Your task to perform on an android device: Open location settings Image 0: 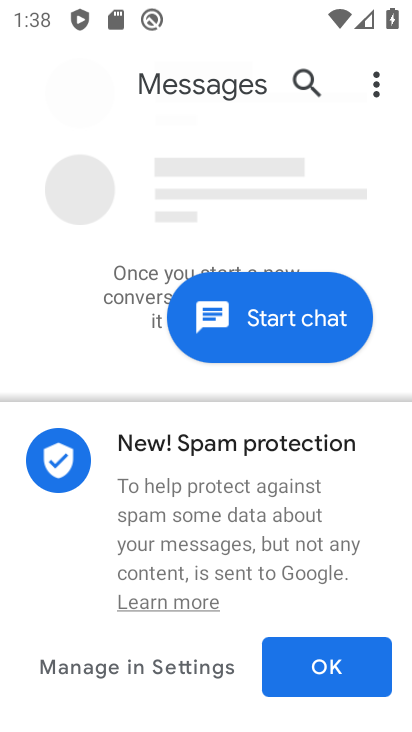
Step 0: press home button
Your task to perform on an android device: Open location settings Image 1: 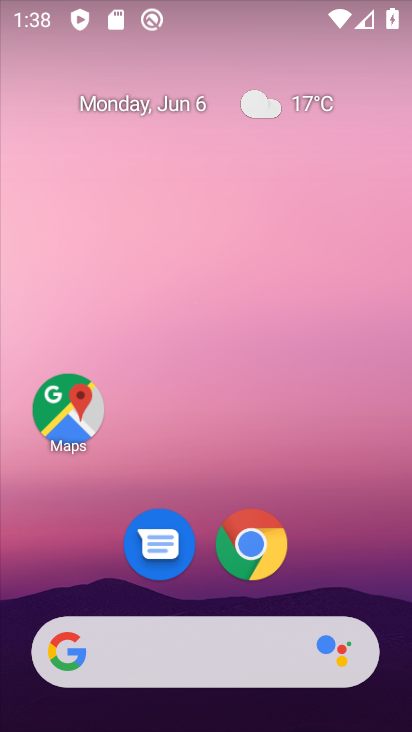
Step 1: drag from (349, 566) to (288, 244)
Your task to perform on an android device: Open location settings Image 2: 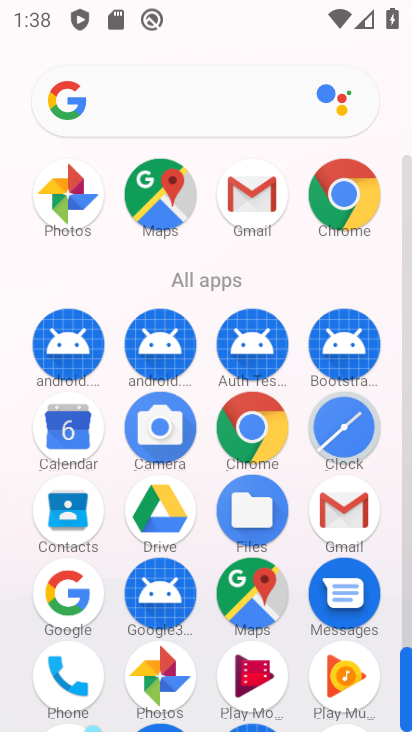
Step 2: drag from (284, 646) to (247, 332)
Your task to perform on an android device: Open location settings Image 3: 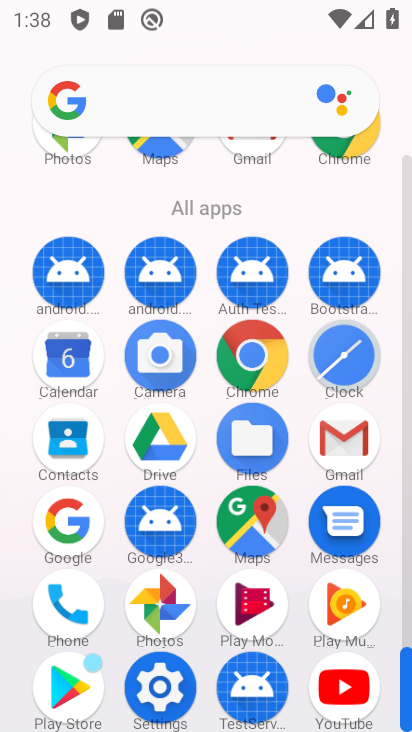
Step 3: click (169, 679)
Your task to perform on an android device: Open location settings Image 4: 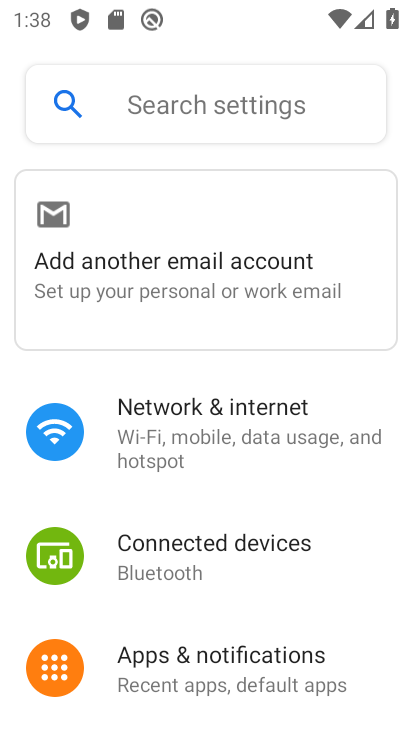
Step 4: drag from (320, 639) to (299, 349)
Your task to perform on an android device: Open location settings Image 5: 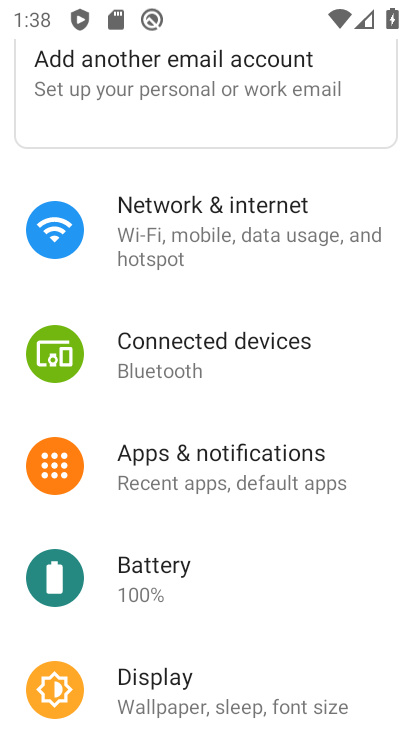
Step 5: drag from (321, 620) to (315, 248)
Your task to perform on an android device: Open location settings Image 6: 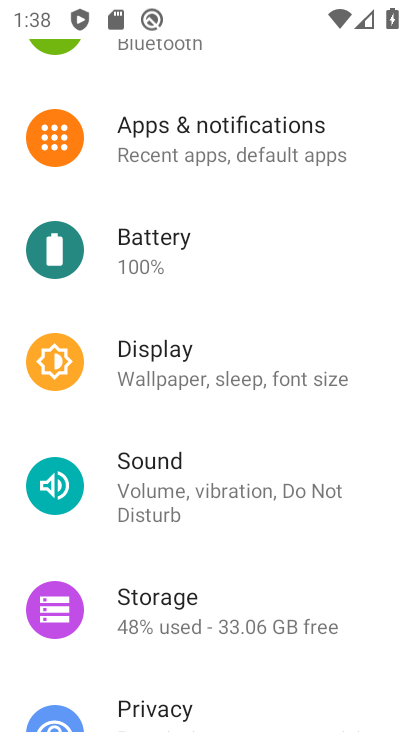
Step 6: drag from (284, 700) to (294, 285)
Your task to perform on an android device: Open location settings Image 7: 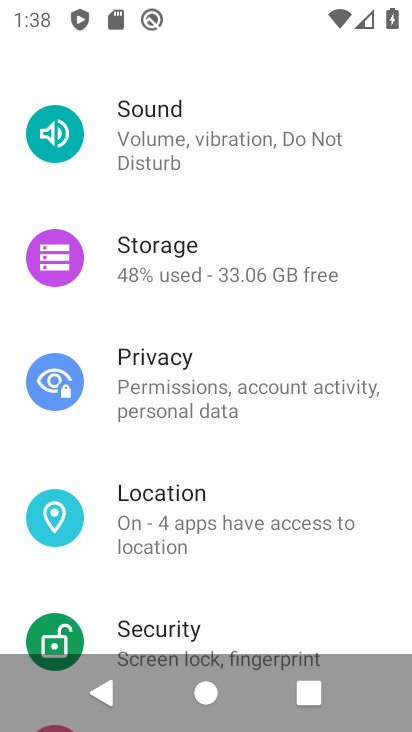
Step 7: click (231, 530)
Your task to perform on an android device: Open location settings Image 8: 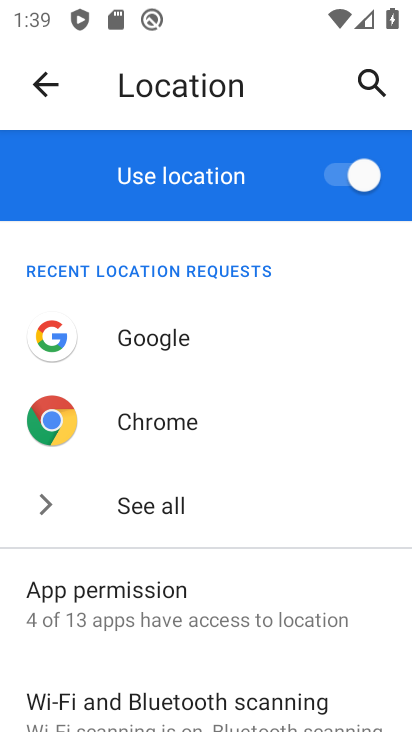
Step 8: drag from (270, 596) to (285, 282)
Your task to perform on an android device: Open location settings Image 9: 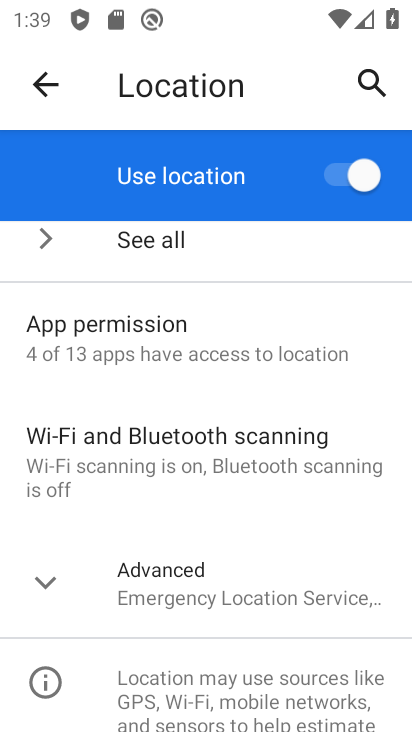
Step 9: drag from (286, 635) to (282, 401)
Your task to perform on an android device: Open location settings Image 10: 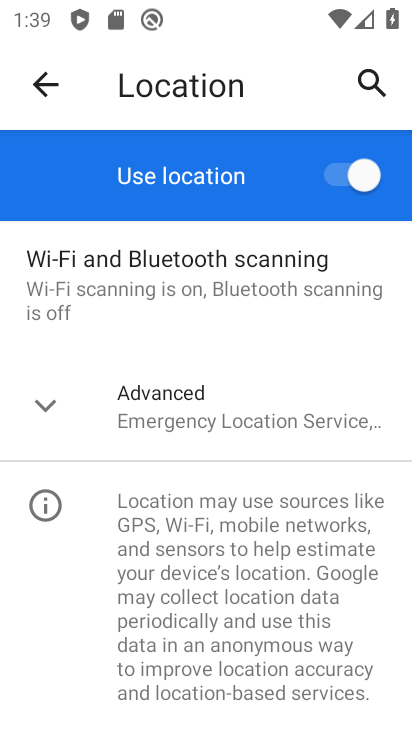
Step 10: click (251, 431)
Your task to perform on an android device: Open location settings Image 11: 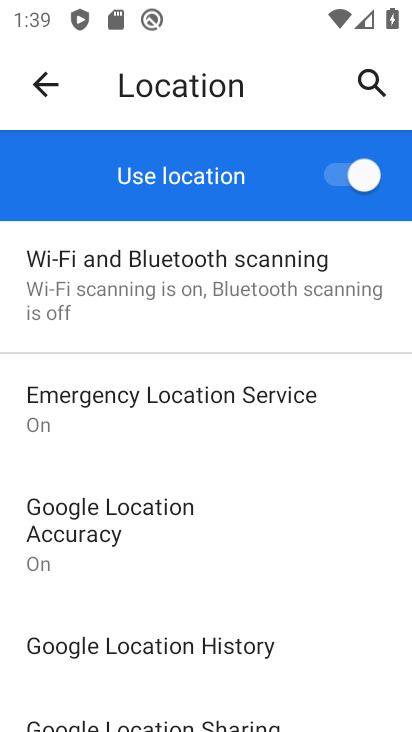
Step 11: task complete